Your task to perform on an android device: read, delete, or share a saved page in the chrome app Image 0: 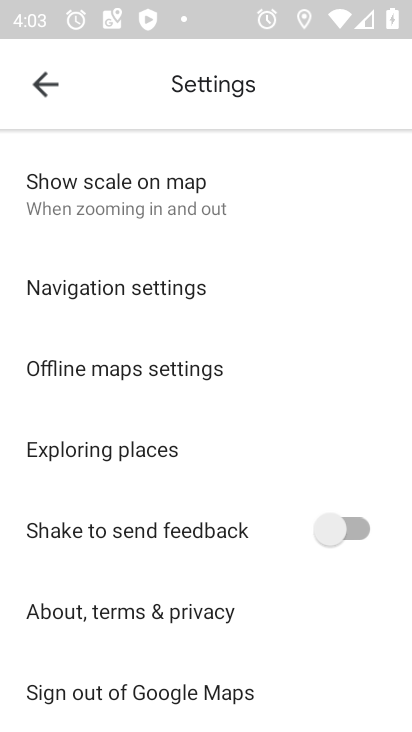
Step 0: press home button
Your task to perform on an android device: read, delete, or share a saved page in the chrome app Image 1: 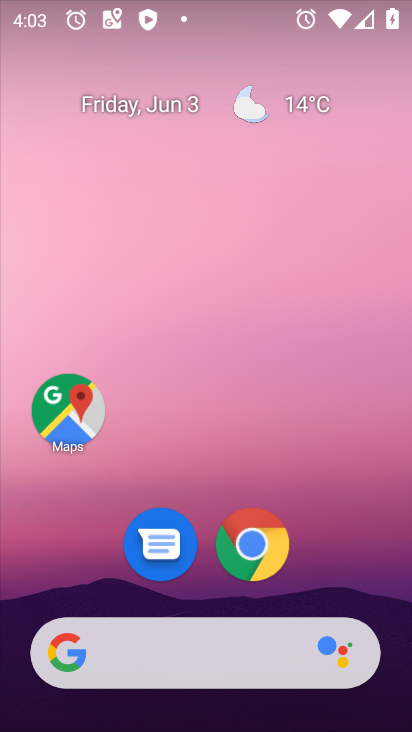
Step 1: click (251, 543)
Your task to perform on an android device: read, delete, or share a saved page in the chrome app Image 2: 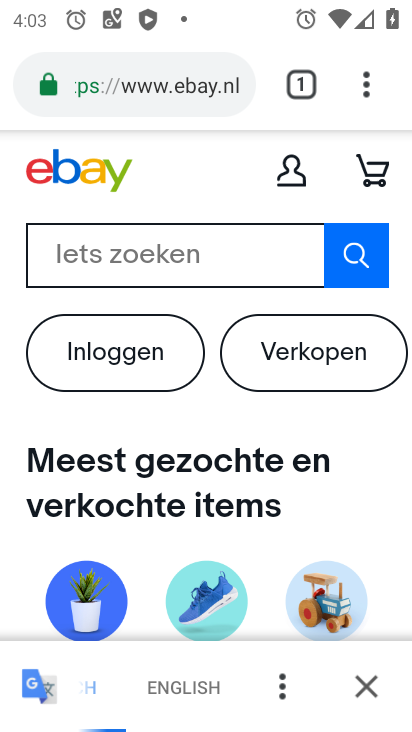
Step 2: click (367, 84)
Your task to perform on an android device: read, delete, or share a saved page in the chrome app Image 3: 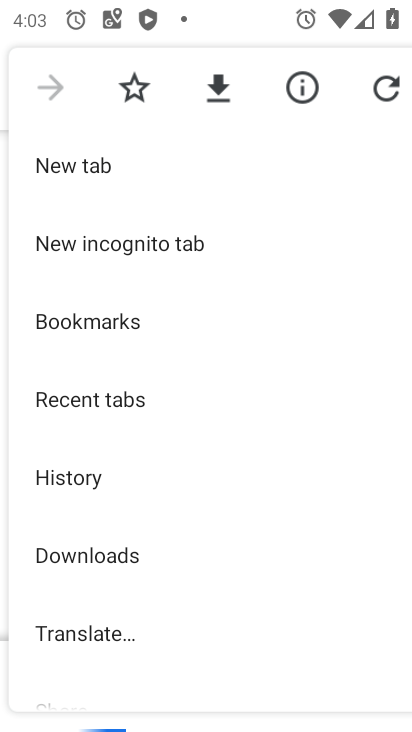
Step 3: click (95, 549)
Your task to perform on an android device: read, delete, or share a saved page in the chrome app Image 4: 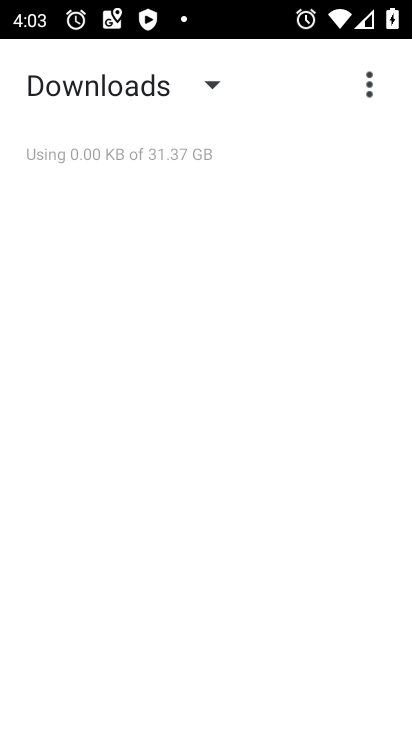
Step 4: click (213, 80)
Your task to perform on an android device: read, delete, or share a saved page in the chrome app Image 5: 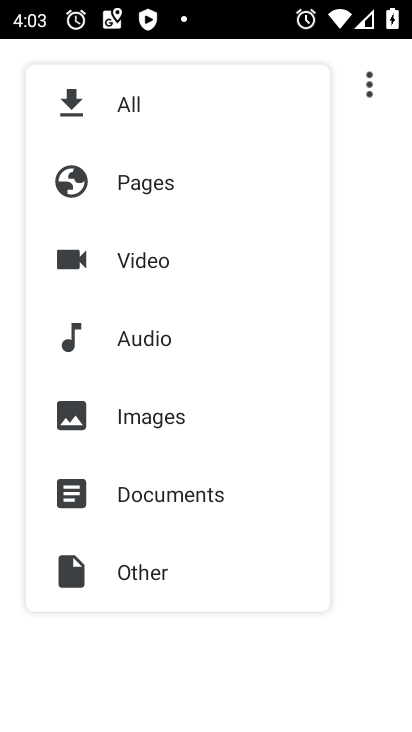
Step 5: click (110, 179)
Your task to perform on an android device: read, delete, or share a saved page in the chrome app Image 6: 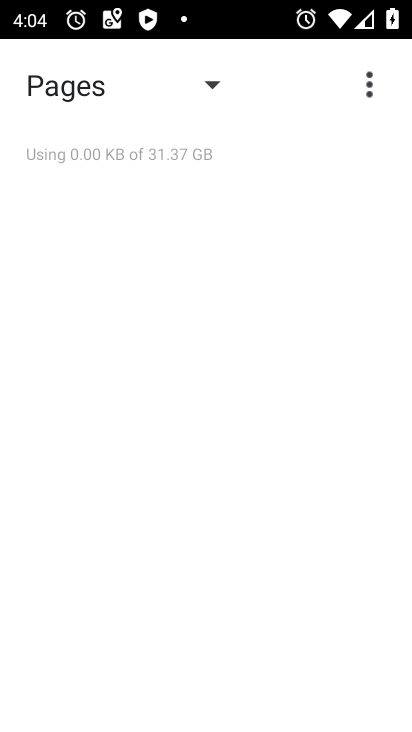
Step 6: task complete